Your task to perform on an android device: manage bookmarks in the chrome app Image 0: 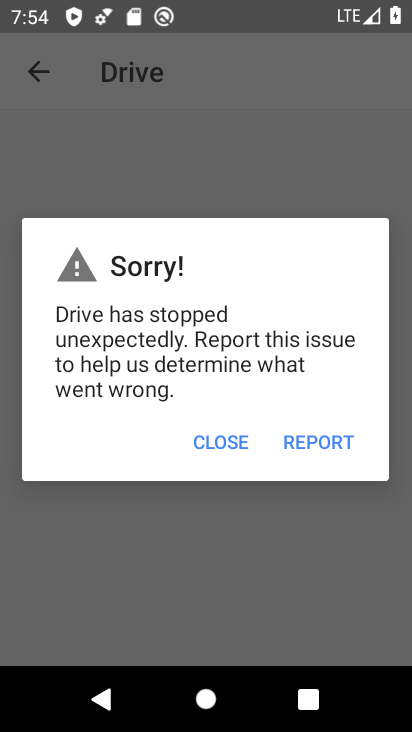
Step 0: press home button
Your task to perform on an android device: manage bookmarks in the chrome app Image 1: 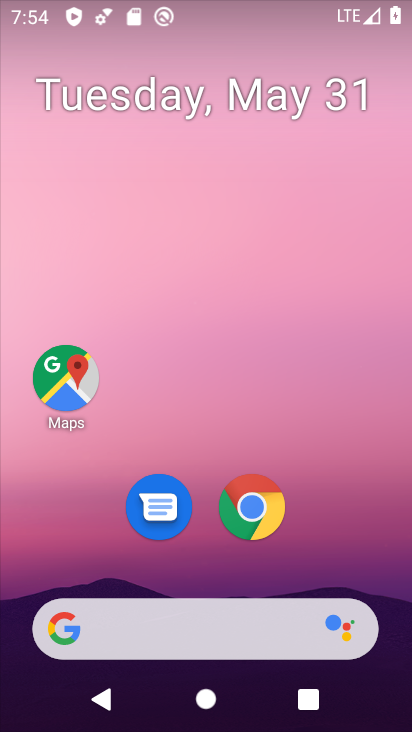
Step 1: click (251, 511)
Your task to perform on an android device: manage bookmarks in the chrome app Image 2: 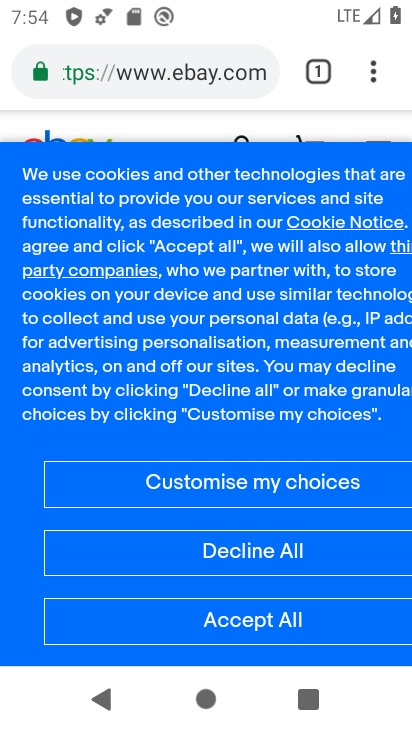
Step 2: click (372, 75)
Your task to perform on an android device: manage bookmarks in the chrome app Image 3: 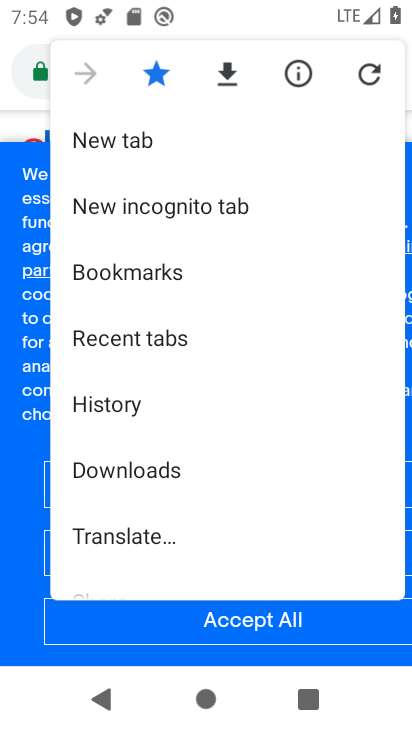
Step 3: click (138, 272)
Your task to perform on an android device: manage bookmarks in the chrome app Image 4: 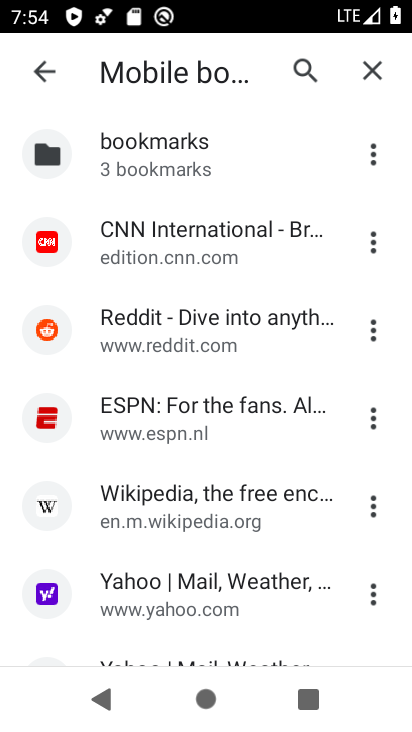
Step 4: click (373, 512)
Your task to perform on an android device: manage bookmarks in the chrome app Image 5: 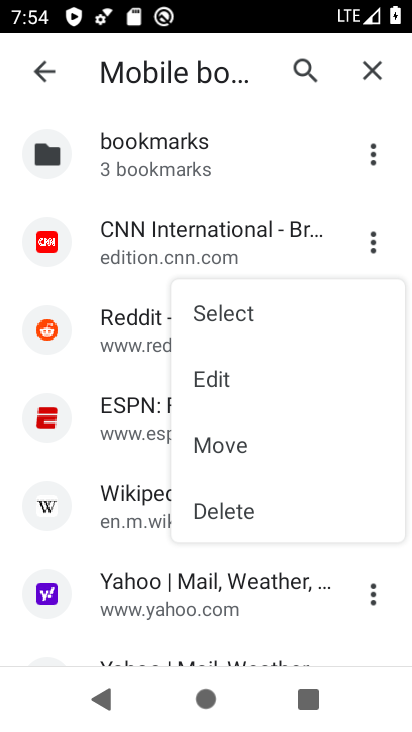
Step 5: click (221, 446)
Your task to perform on an android device: manage bookmarks in the chrome app Image 6: 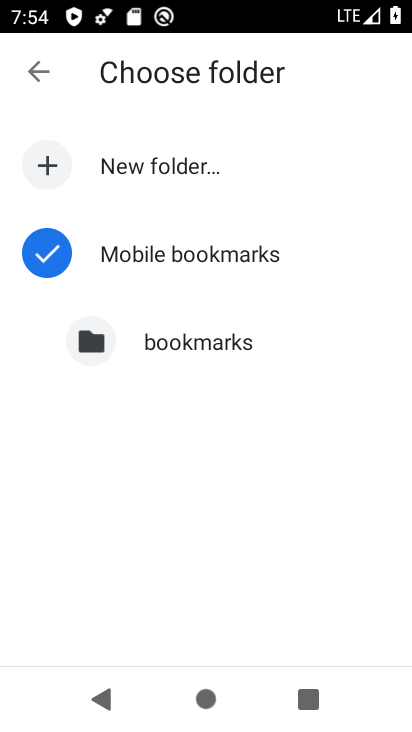
Step 6: click (145, 263)
Your task to perform on an android device: manage bookmarks in the chrome app Image 7: 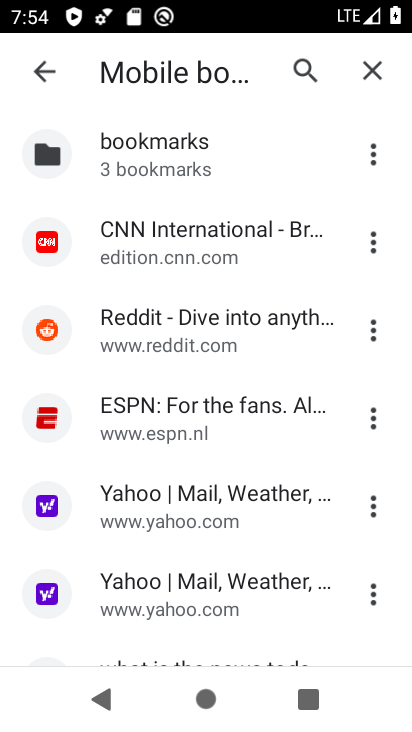
Step 7: task complete